Your task to perform on an android device: What's the weather going to be this weekend? Image 0: 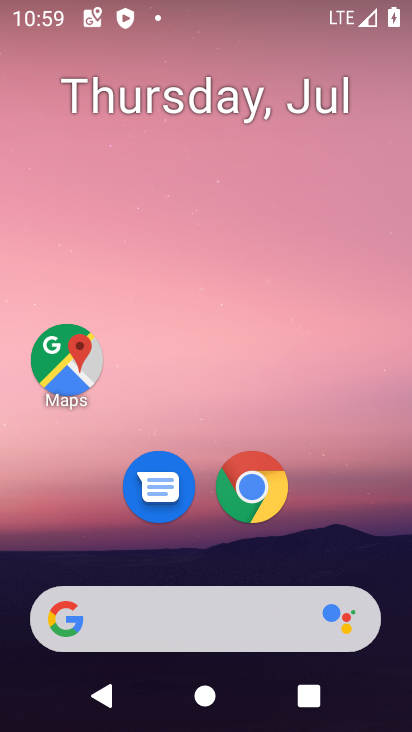
Step 0: click (215, 601)
Your task to perform on an android device: What's the weather going to be this weekend? Image 1: 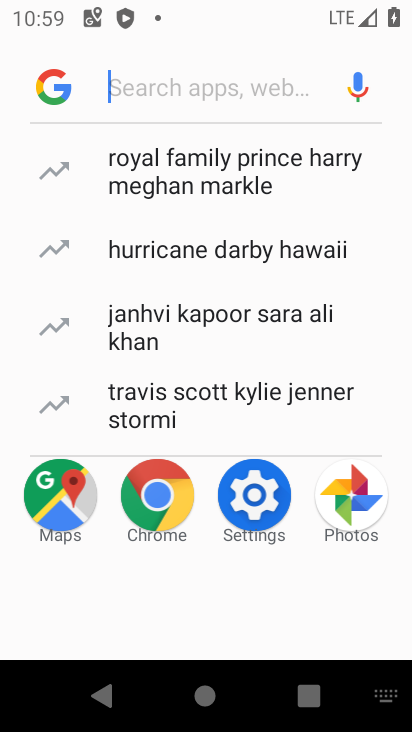
Step 1: click (150, 91)
Your task to perform on an android device: What's the weather going to be this weekend? Image 2: 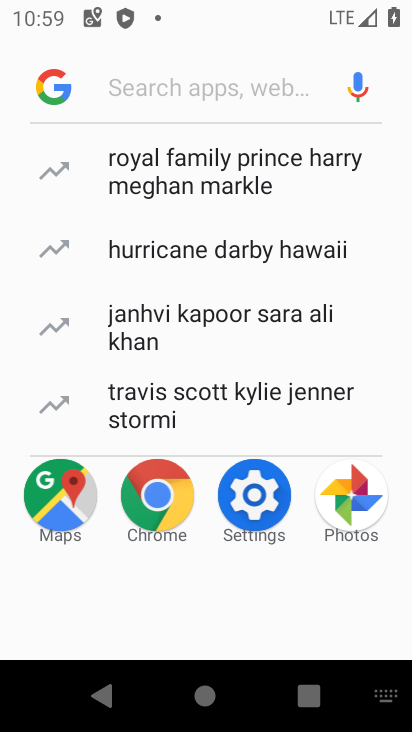
Step 2: type "weather"
Your task to perform on an android device: What's the weather going to be this weekend? Image 3: 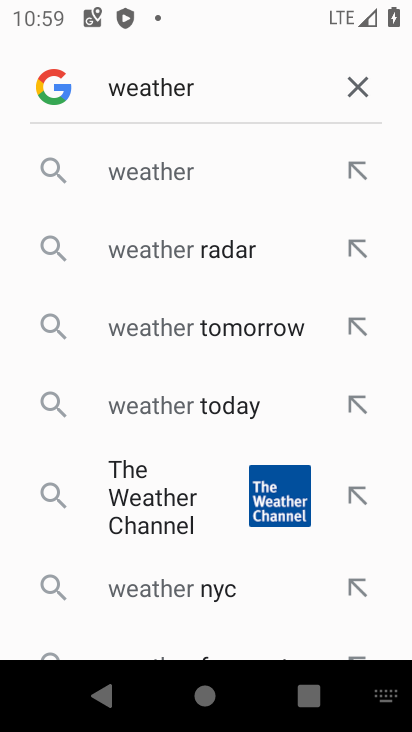
Step 3: click (155, 172)
Your task to perform on an android device: What's the weather going to be this weekend? Image 4: 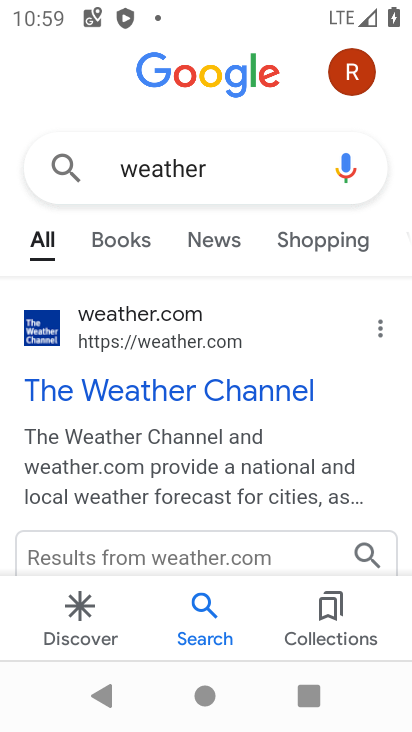
Step 4: drag from (207, 479) to (212, 710)
Your task to perform on an android device: What's the weather going to be this weekend? Image 5: 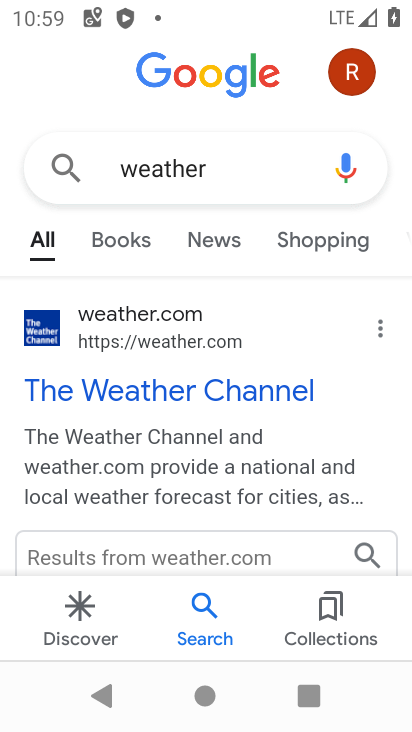
Step 5: click (142, 396)
Your task to perform on an android device: What's the weather going to be this weekend? Image 6: 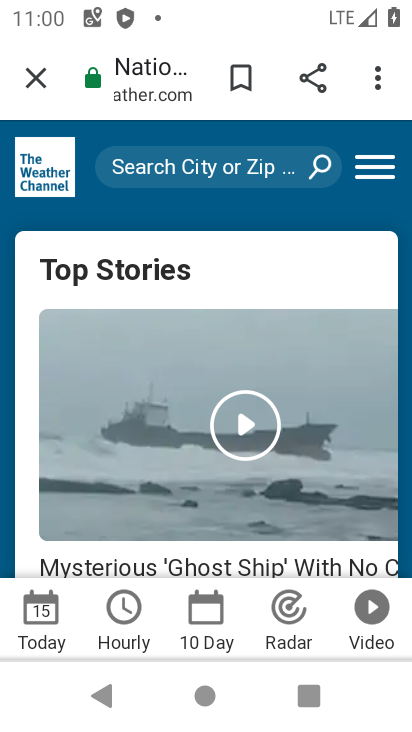
Step 6: task complete